Your task to perform on an android device: Open Google Maps and go to "Timeline" Image 0: 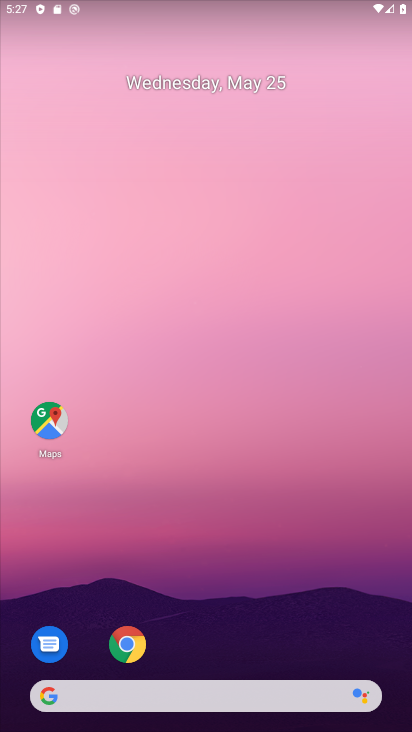
Step 0: click (46, 441)
Your task to perform on an android device: Open Google Maps and go to "Timeline" Image 1: 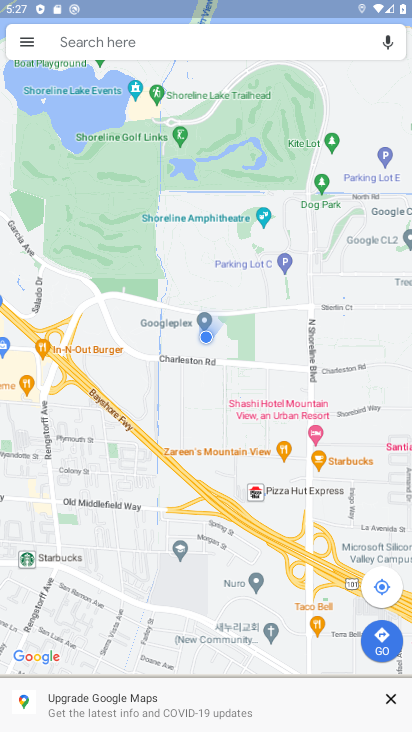
Step 1: click (21, 36)
Your task to perform on an android device: Open Google Maps and go to "Timeline" Image 2: 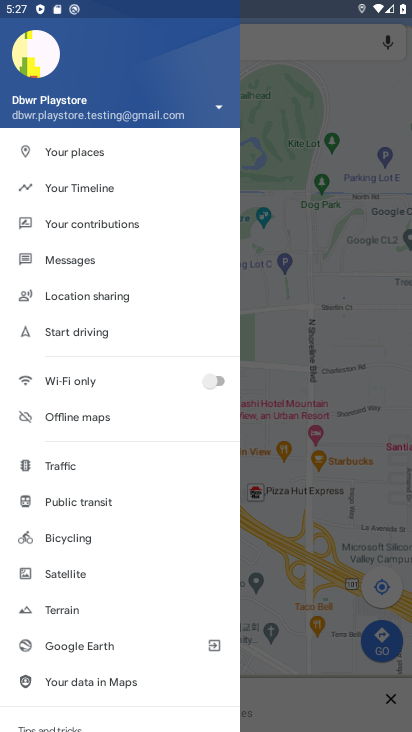
Step 2: click (46, 189)
Your task to perform on an android device: Open Google Maps and go to "Timeline" Image 3: 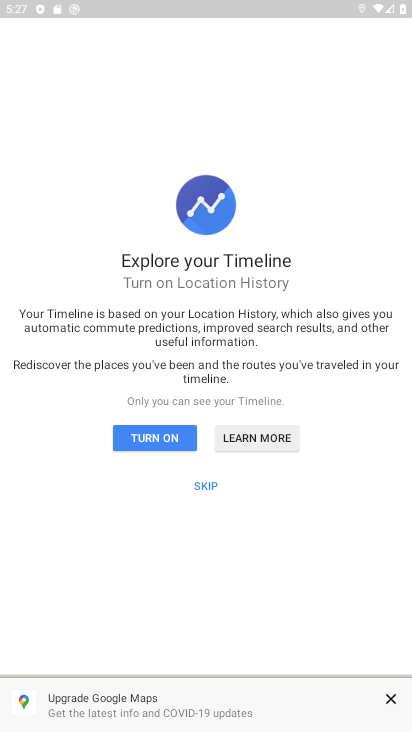
Step 3: click (210, 487)
Your task to perform on an android device: Open Google Maps and go to "Timeline" Image 4: 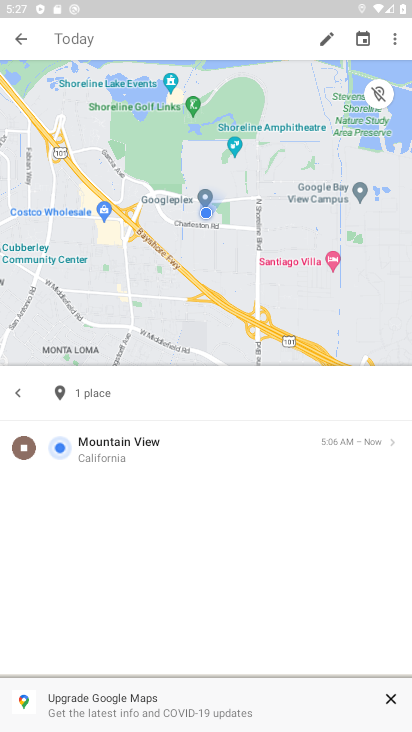
Step 4: task complete